Your task to perform on an android device: toggle show notifications on the lock screen Image 0: 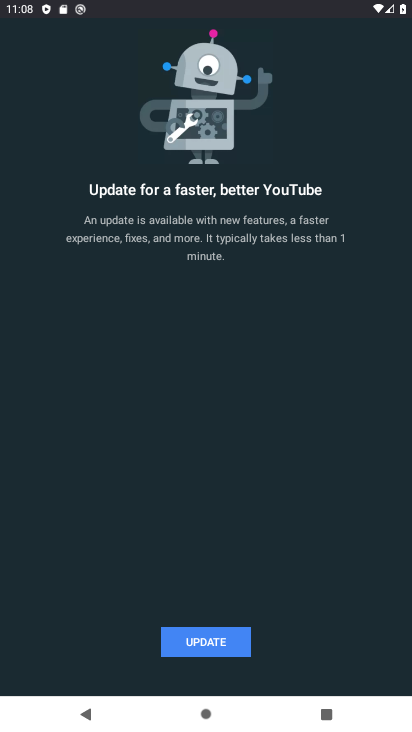
Step 0: press home button
Your task to perform on an android device: toggle show notifications on the lock screen Image 1: 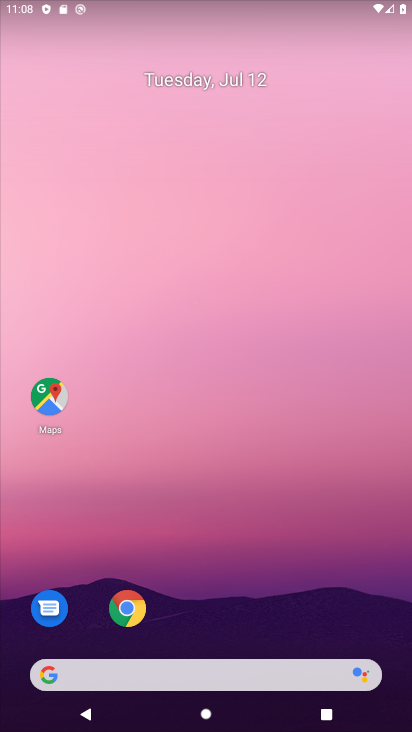
Step 1: drag from (174, 634) to (161, 274)
Your task to perform on an android device: toggle show notifications on the lock screen Image 2: 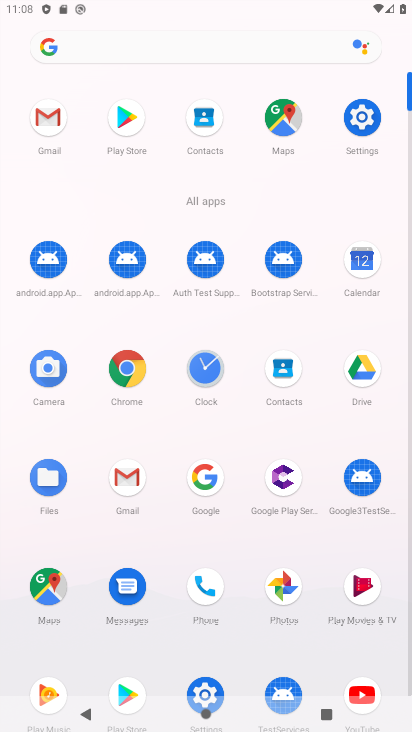
Step 2: click (359, 103)
Your task to perform on an android device: toggle show notifications on the lock screen Image 3: 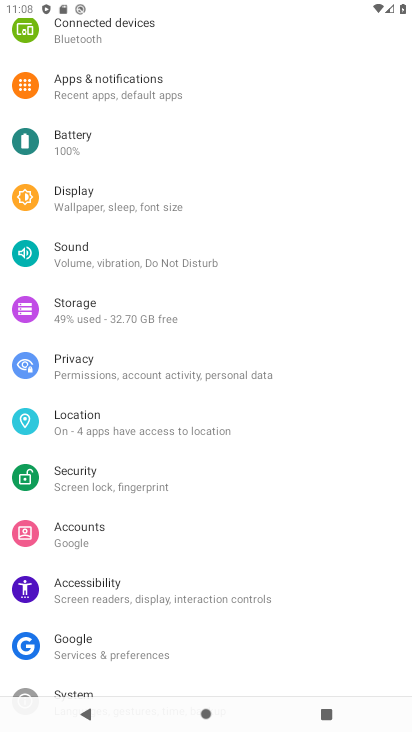
Step 3: click (94, 72)
Your task to perform on an android device: toggle show notifications on the lock screen Image 4: 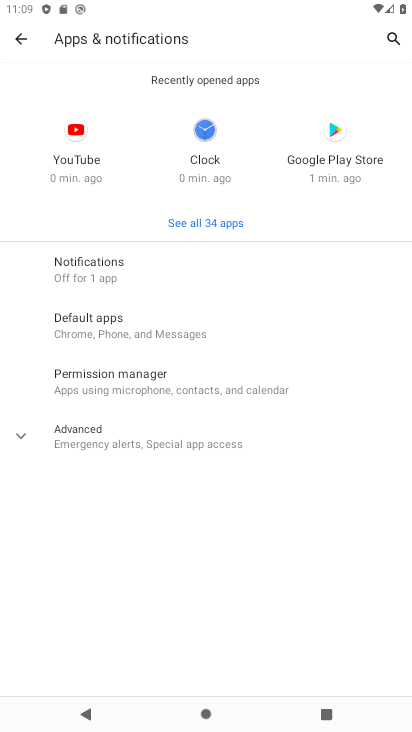
Step 4: click (142, 262)
Your task to perform on an android device: toggle show notifications on the lock screen Image 5: 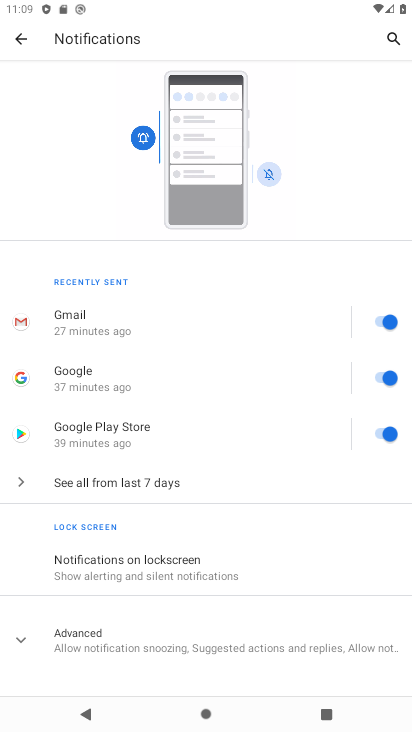
Step 5: click (173, 574)
Your task to perform on an android device: toggle show notifications on the lock screen Image 6: 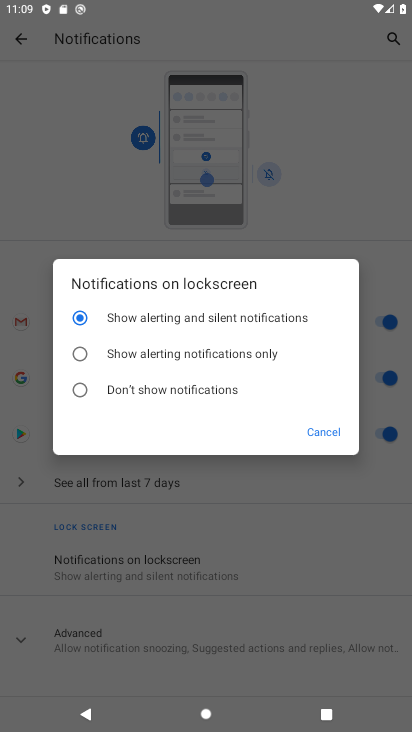
Step 6: click (154, 350)
Your task to perform on an android device: toggle show notifications on the lock screen Image 7: 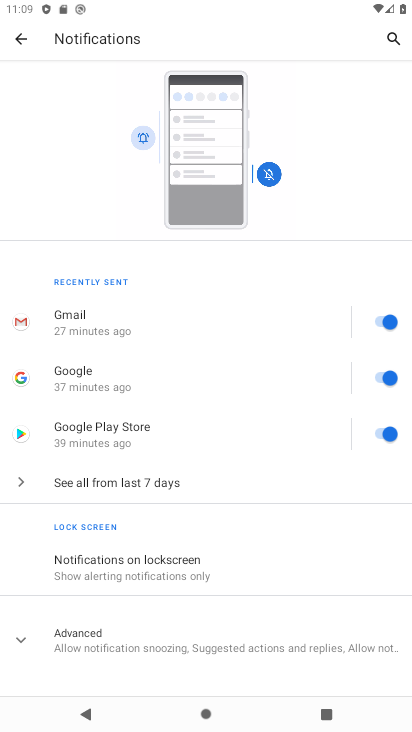
Step 7: task complete